Your task to perform on an android device: set the timer Image 0: 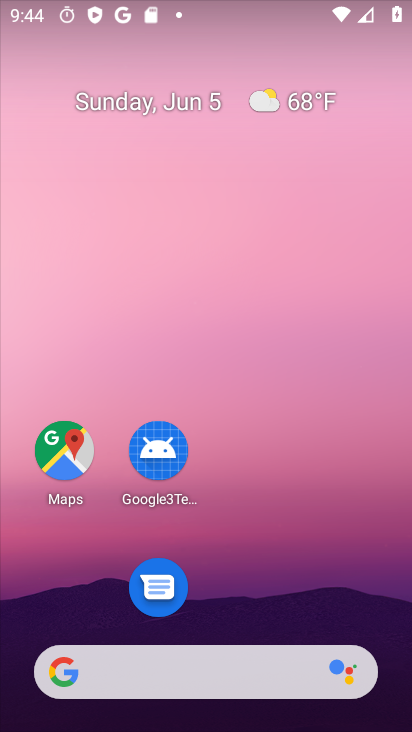
Step 0: drag from (297, 639) to (344, 6)
Your task to perform on an android device: set the timer Image 1: 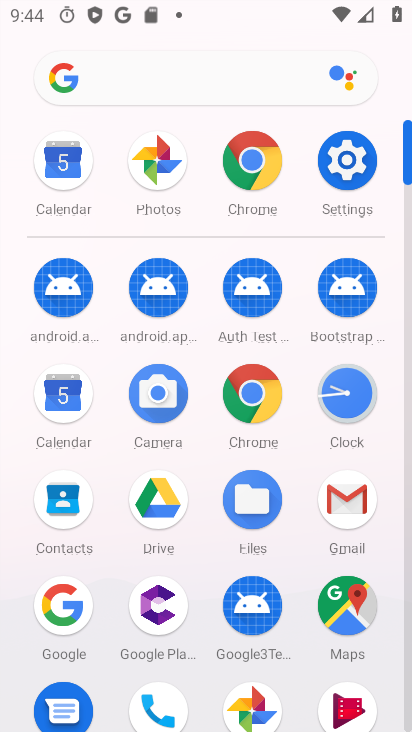
Step 1: click (335, 393)
Your task to perform on an android device: set the timer Image 2: 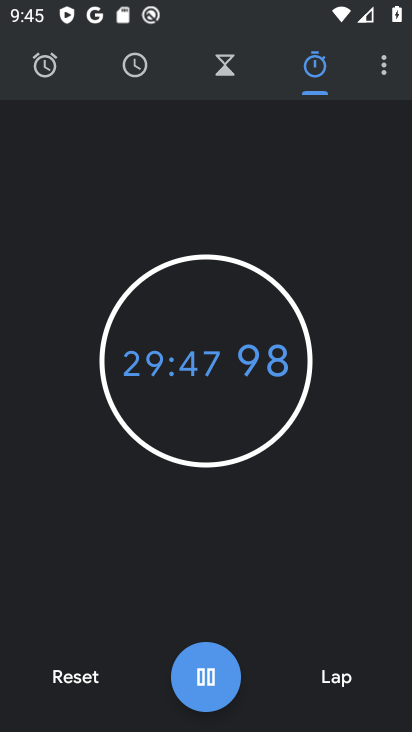
Step 2: click (222, 77)
Your task to perform on an android device: set the timer Image 3: 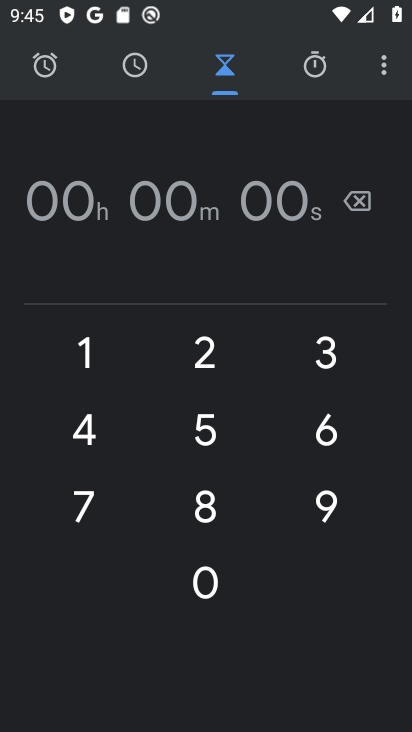
Step 3: click (196, 370)
Your task to perform on an android device: set the timer Image 4: 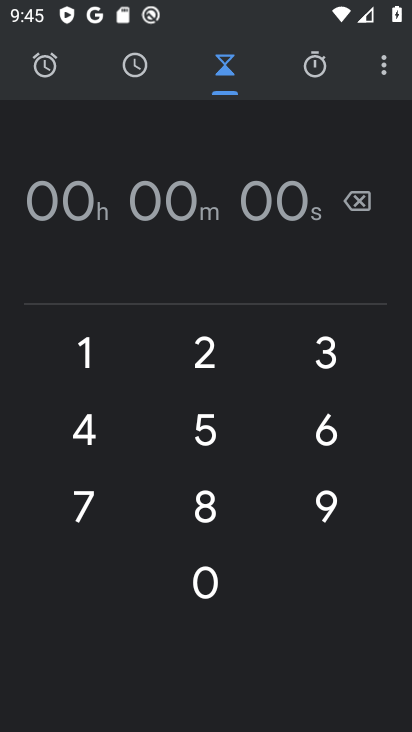
Step 4: click (196, 370)
Your task to perform on an android device: set the timer Image 5: 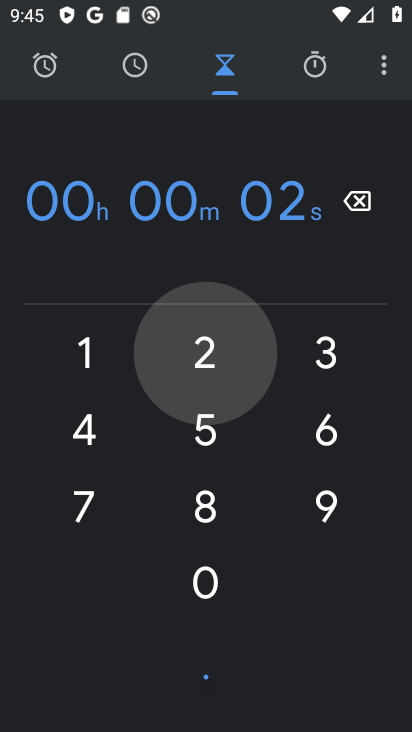
Step 5: click (196, 370)
Your task to perform on an android device: set the timer Image 6: 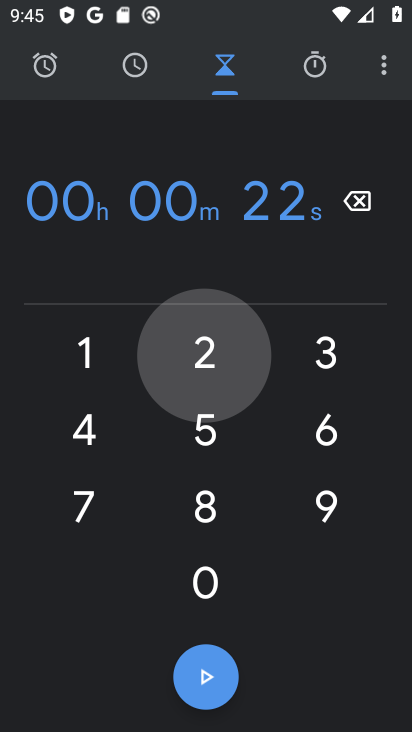
Step 6: click (196, 370)
Your task to perform on an android device: set the timer Image 7: 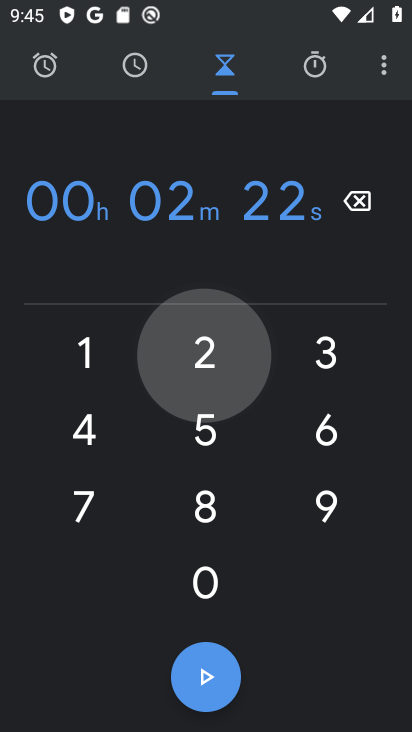
Step 7: click (196, 370)
Your task to perform on an android device: set the timer Image 8: 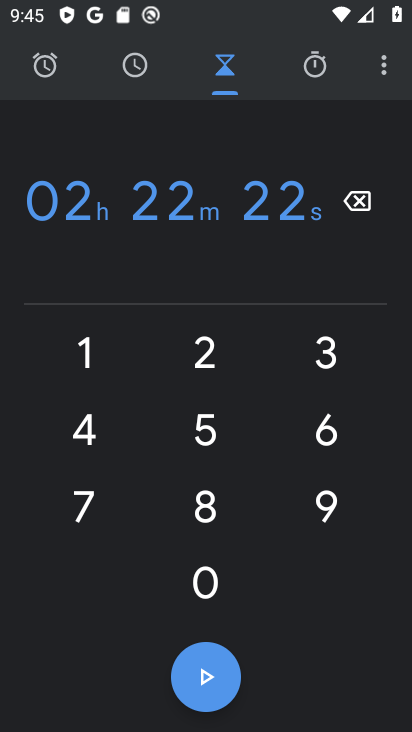
Step 8: click (205, 661)
Your task to perform on an android device: set the timer Image 9: 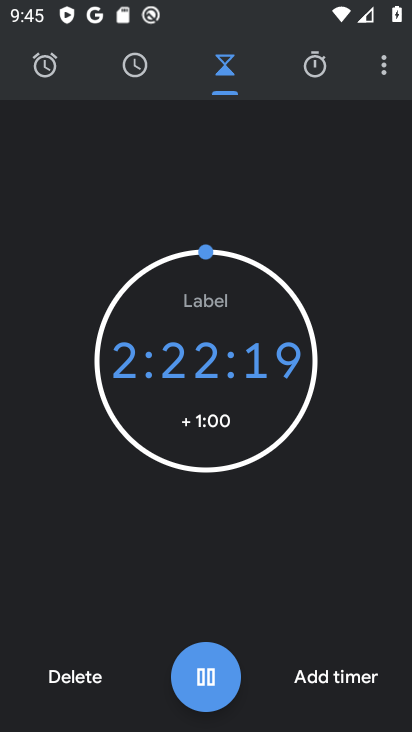
Step 9: task complete